Your task to perform on an android device: Open Google Maps and go to "Timeline" Image 0: 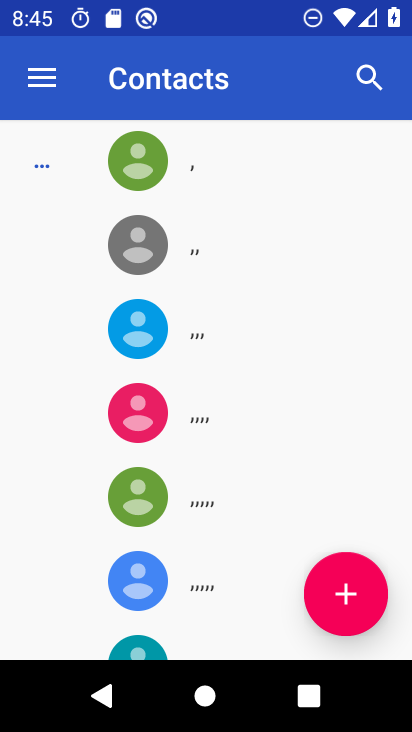
Step 0: press home button
Your task to perform on an android device: Open Google Maps and go to "Timeline" Image 1: 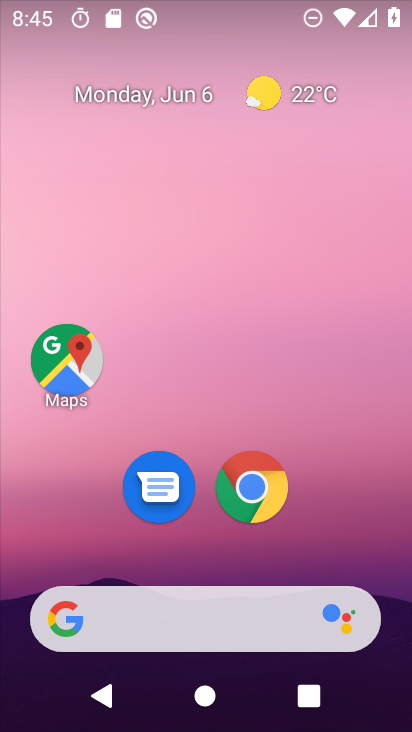
Step 1: drag from (402, 614) to (297, 35)
Your task to perform on an android device: Open Google Maps and go to "Timeline" Image 2: 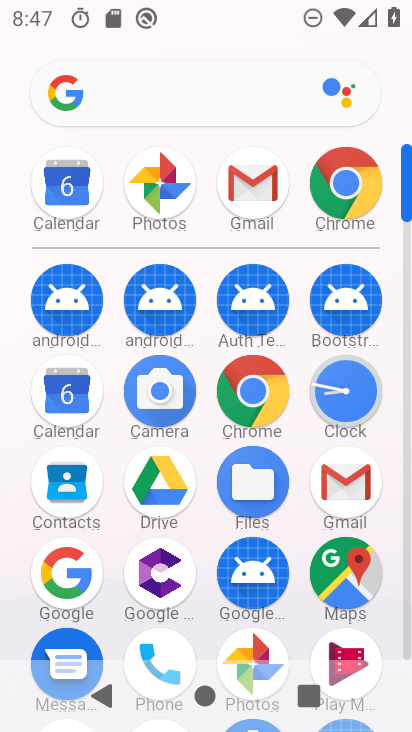
Step 2: click (353, 553)
Your task to perform on an android device: Open Google Maps and go to "Timeline" Image 3: 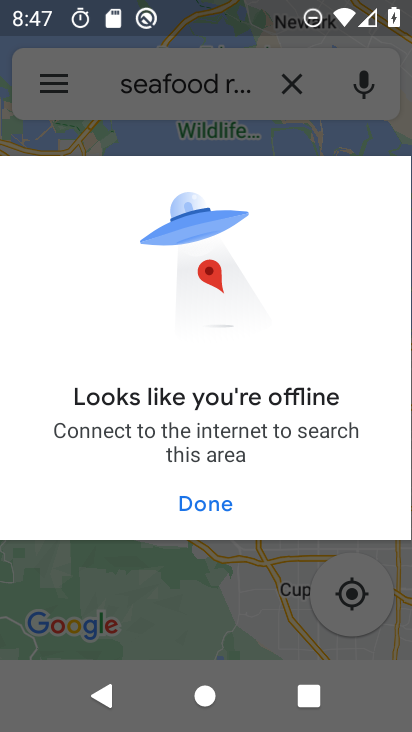
Step 3: press back button
Your task to perform on an android device: Open Google Maps and go to "Timeline" Image 4: 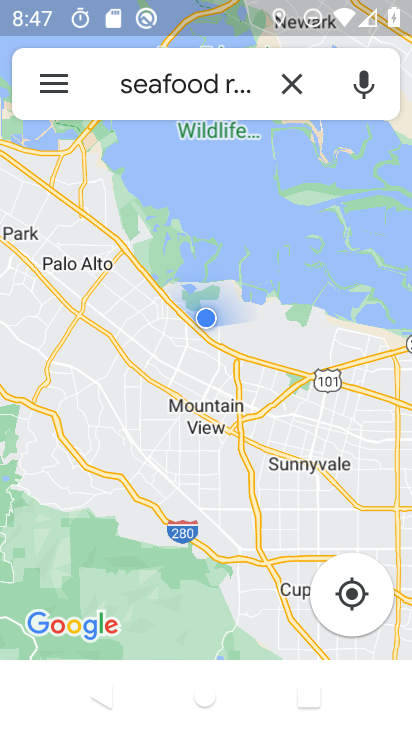
Step 4: click (306, 86)
Your task to perform on an android device: Open Google Maps and go to "Timeline" Image 5: 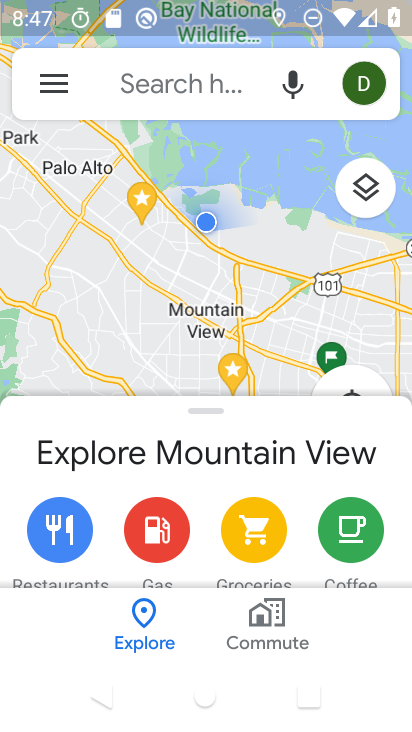
Step 5: click (52, 88)
Your task to perform on an android device: Open Google Maps and go to "Timeline" Image 6: 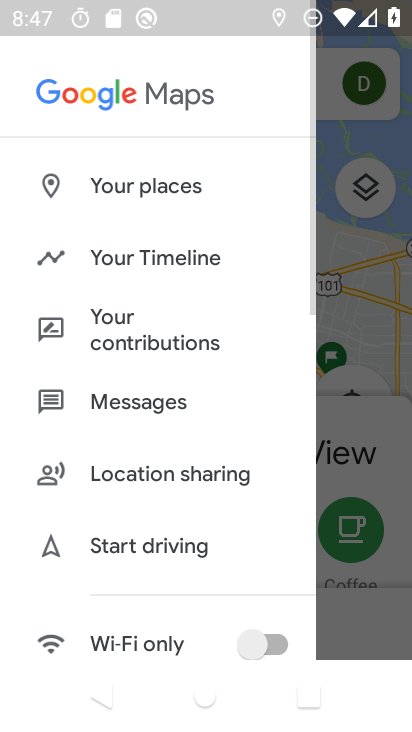
Step 6: click (167, 264)
Your task to perform on an android device: Open Google Maps and go to "Timeline" Image 7: 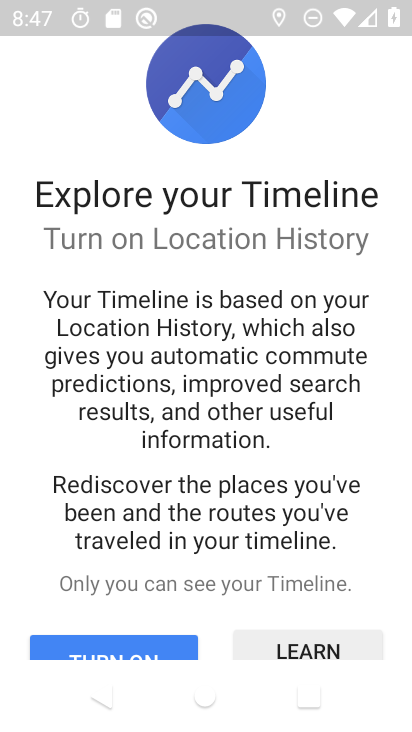
Step 7: task complete